Your task to perform on an android device: Open privacy settings Image 0: 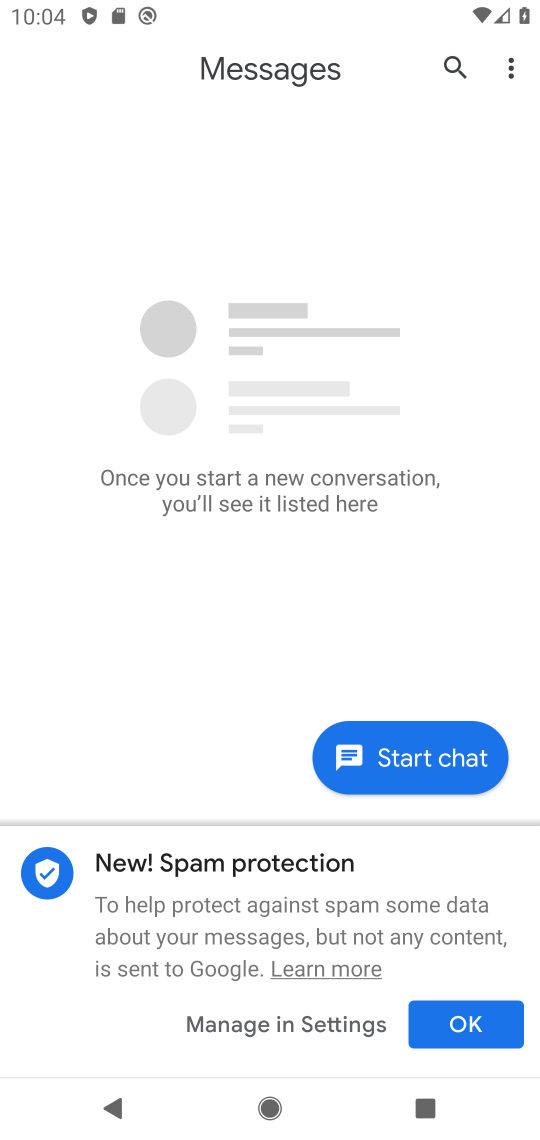
Step 0: press home button
Your task to perform on an android device: Open privacy settings Image 1: 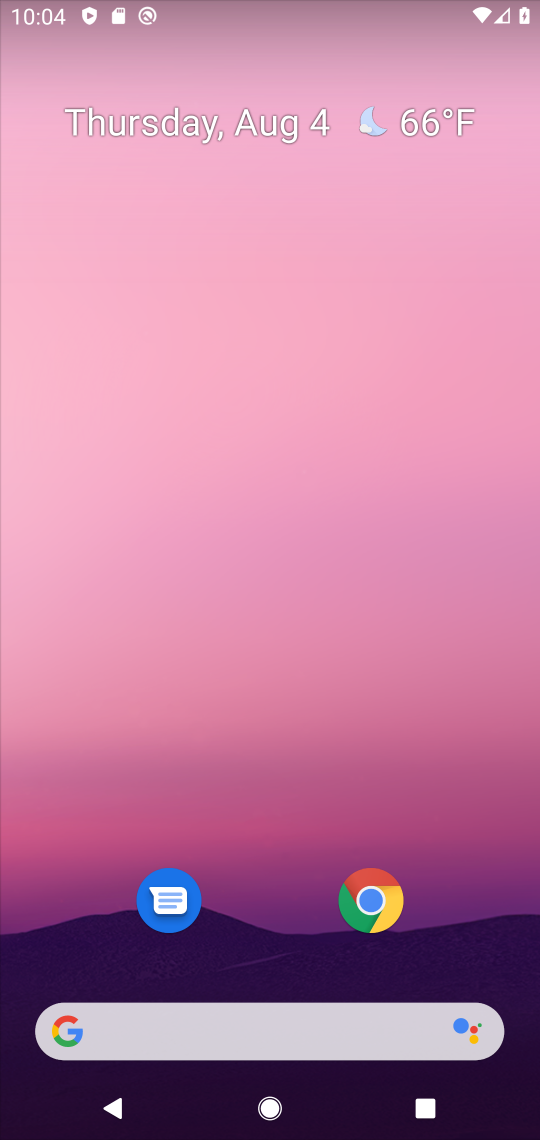
Step 1: drag from (412, 684) to (283, 157)
Your task to perform on an android device: Open privacy settings Image 2: 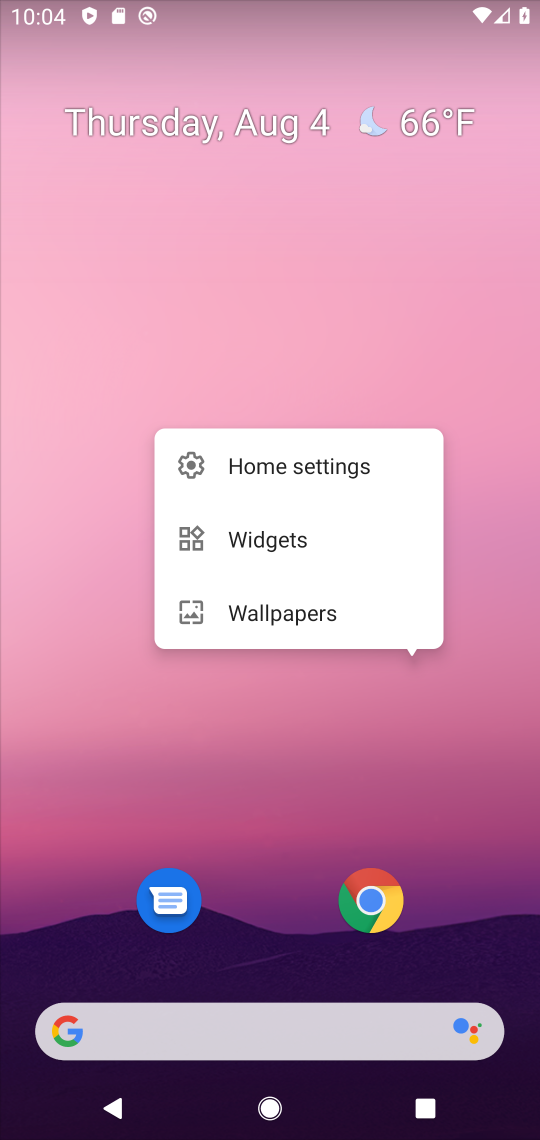
Step 2: drag from (500, 808) to (415, 301)
Your task to perform on an android device: Open privacy settings Image 3: 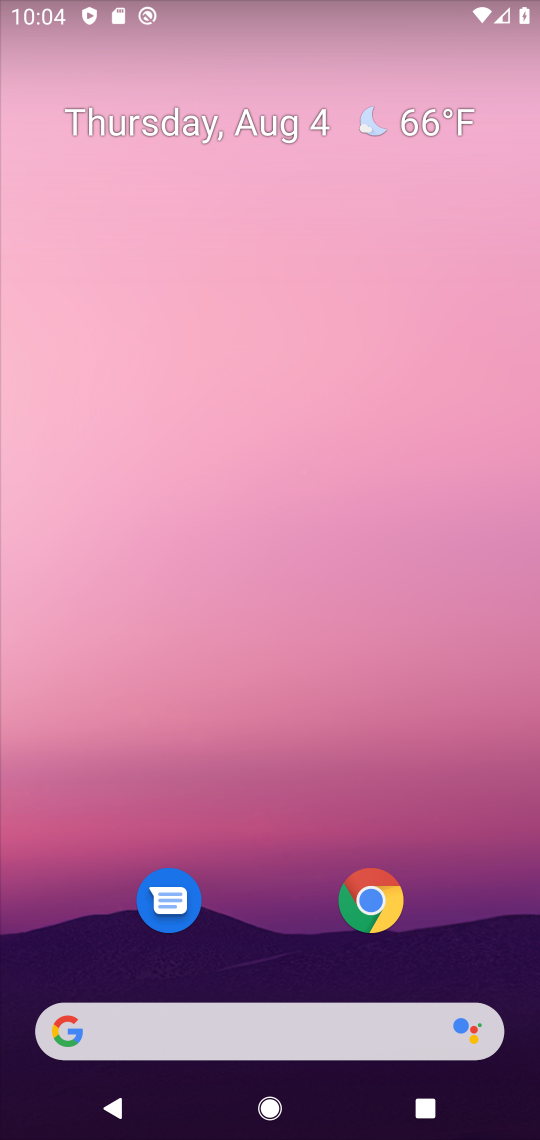
Step 3: drag from (498, 905) to (347, 397)
Your task to perform on an android device: Open privacy settings Image 4: 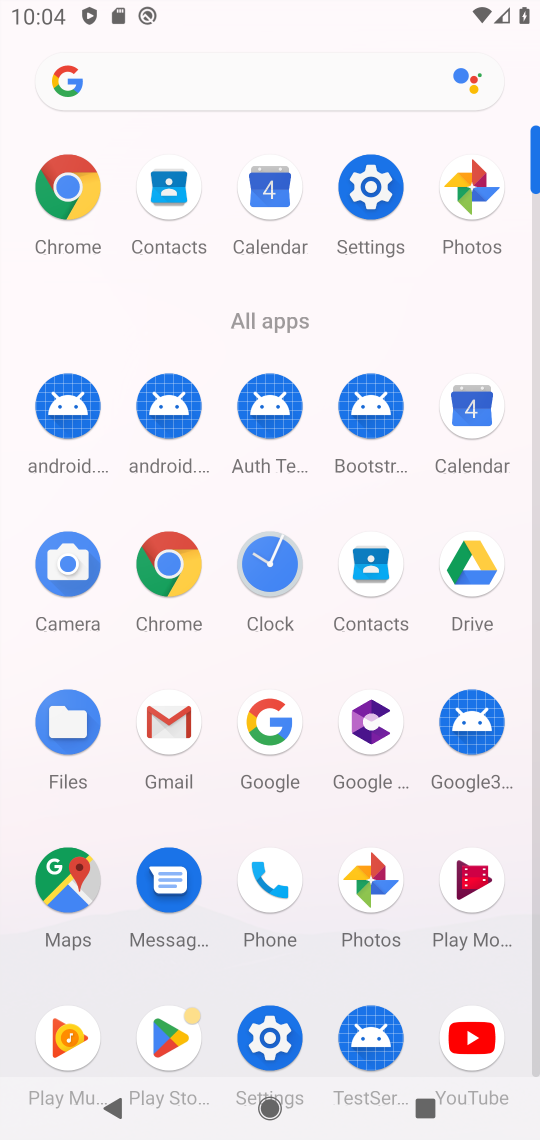
Step 4: click (377, 210)
Your task to perform on an android device: Open privacy settings Image 5: 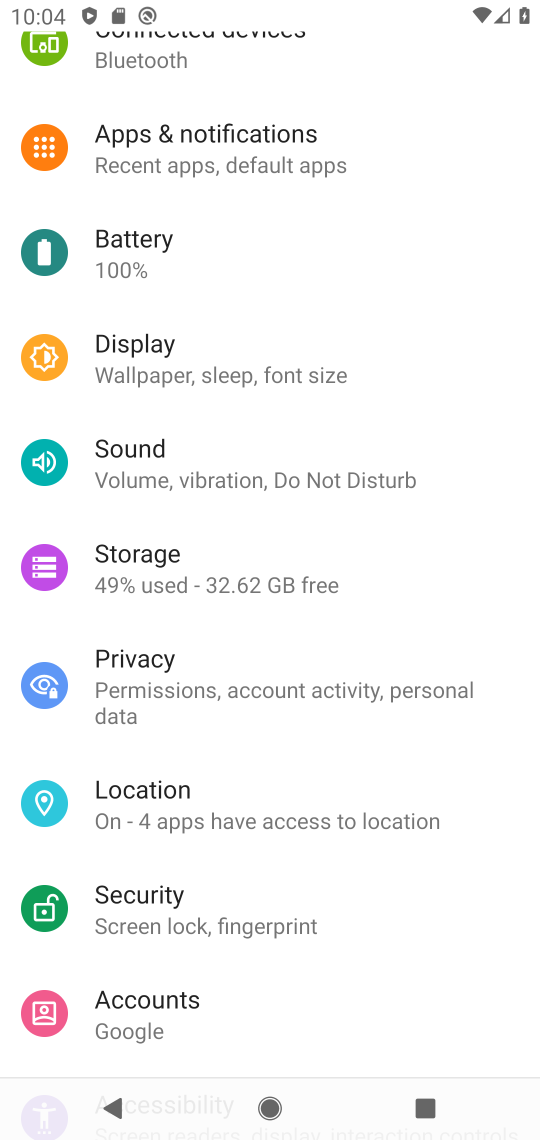
Step 5: click (294, 707)
Your task to perform on an android device: Open privacy settings Image 6: 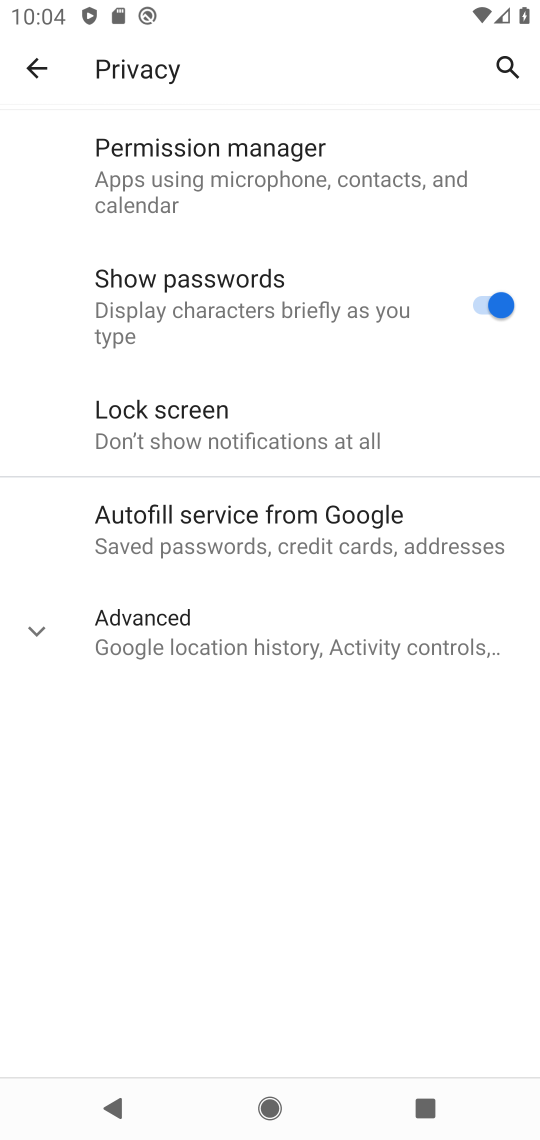
Step 6: task complete